Your task to perform on an android device: Open the phone app and click the voicemail tab. Image 0: 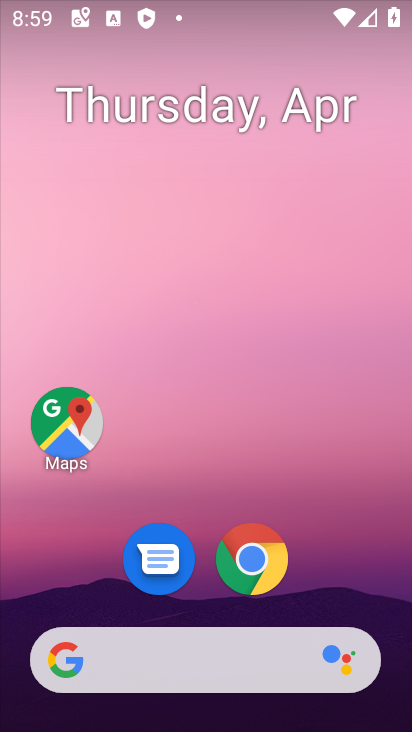
Step 0: drag from (226, 717) to (219, 78)
Your task to perform on an android device: Open the phone app and click the voicemail tab. Image 1: 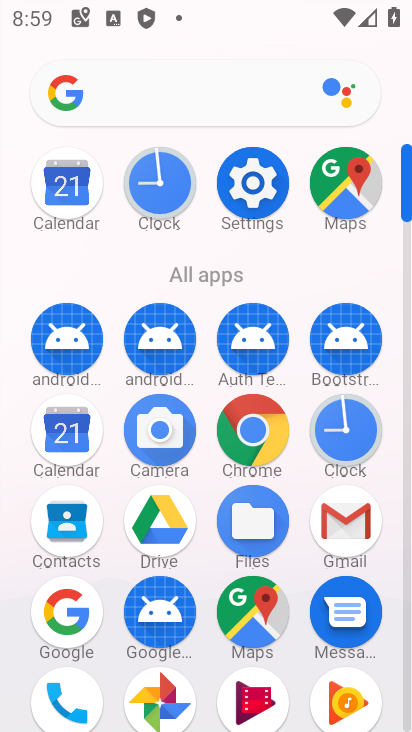
Step 1: click (65, 676)
Your task to perform on an android device: Open the phone app and click the voicemail tab. Image 2: 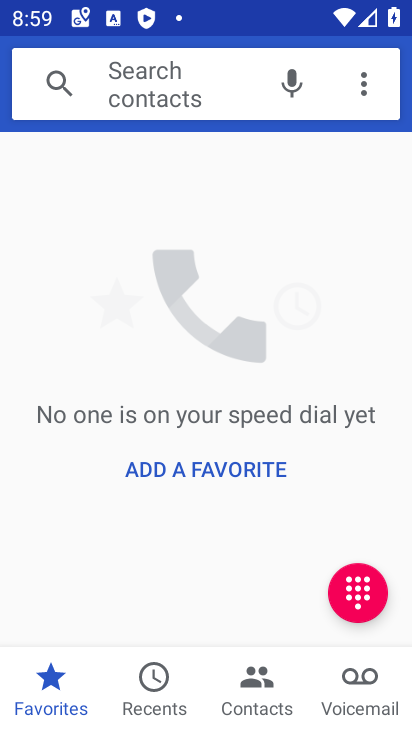
Step 2: click (364, 695)
Your task to perform on an android device: Open the phone app and click the voicemail tab. Image 3: 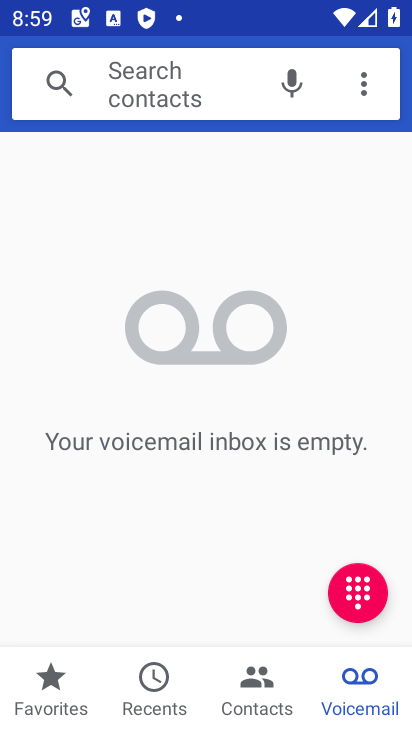
Step 3: task complete